Your task to perform on an android device: delete the emails in spam in the gmail app Image 0: 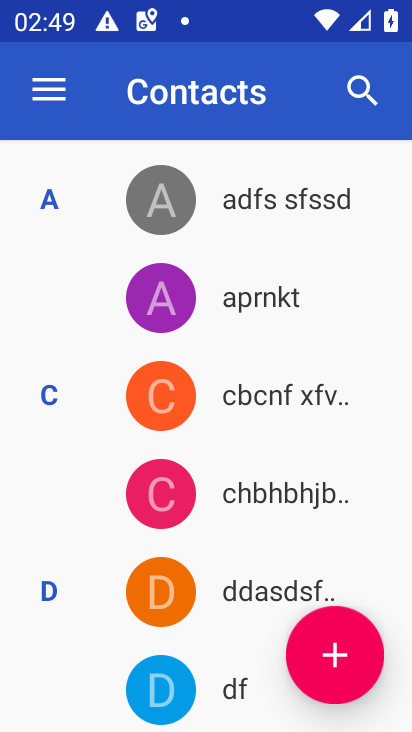
Step 0: press home button
Your task to perform on an android device: delete the emails in spam in the gmail app Image 1: 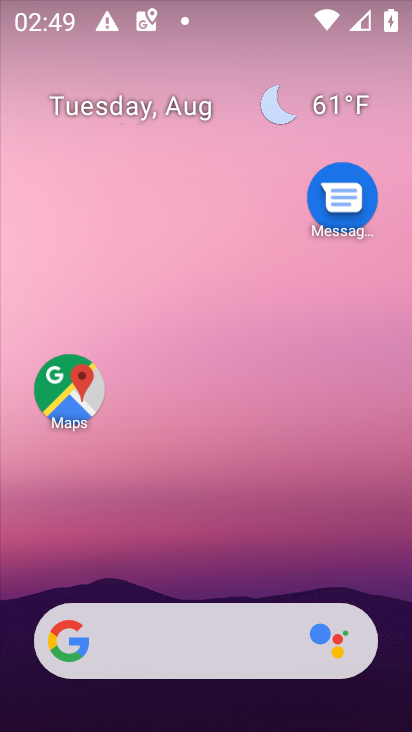
Step 1: drag from (207, 582) to (196, 197)
Your task to perform on an android device: delete the emails in spam in the gmail app Image 2: 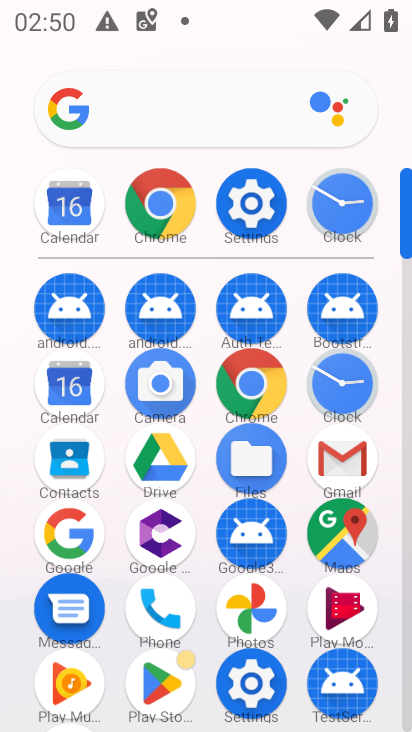
Step 2: click (332, 465)
Your task to perform on an android device: delete the emails in spam in the gmail app Image 3: 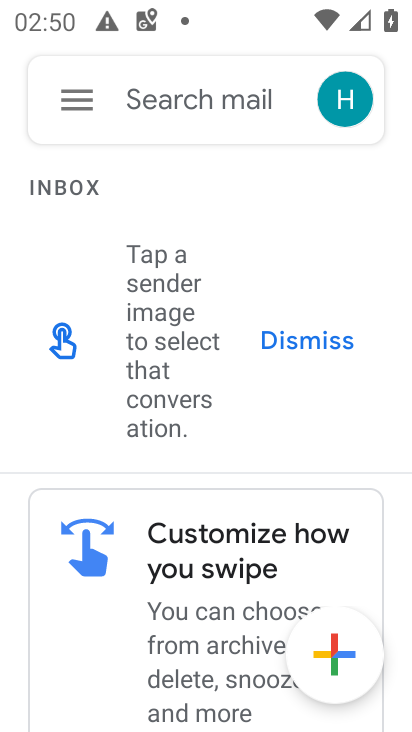
Step 3: click (69, 101)
Your task to perform on an android device: delete the emails in spam in the gmail app Image 4: 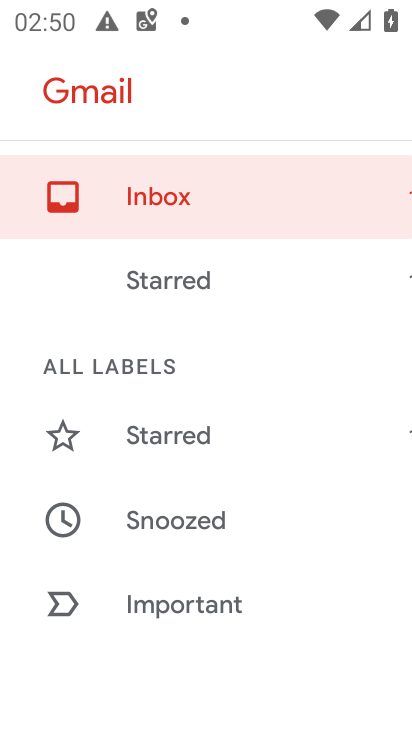
Step 4: drag from (164, 615) to (182, 313)
Your task to perform on an android device: delete the emails in spam in the gmail app Image 5: 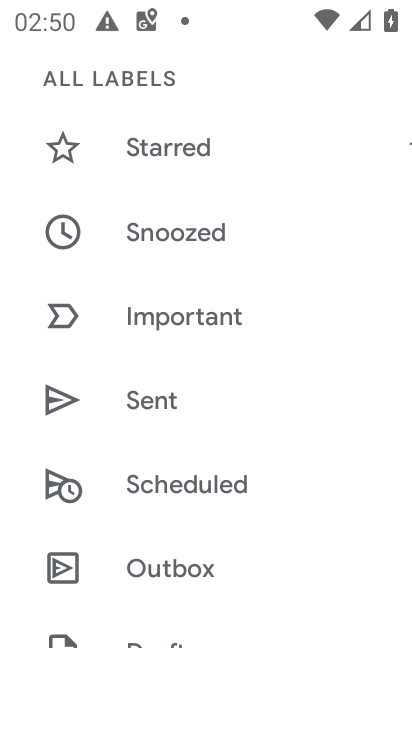
Step 5: drag from (157, 637) to (160, 321)
Your task to perform on an android device: delete the emails in spam in the gmail app Image 6: 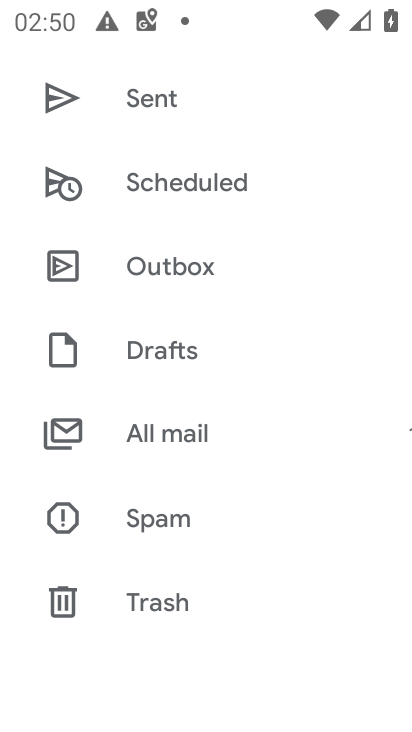
Step 6: click (184, 443)
Your task to perform on an android device: delete the emails in spam in the gmail app Image 7: 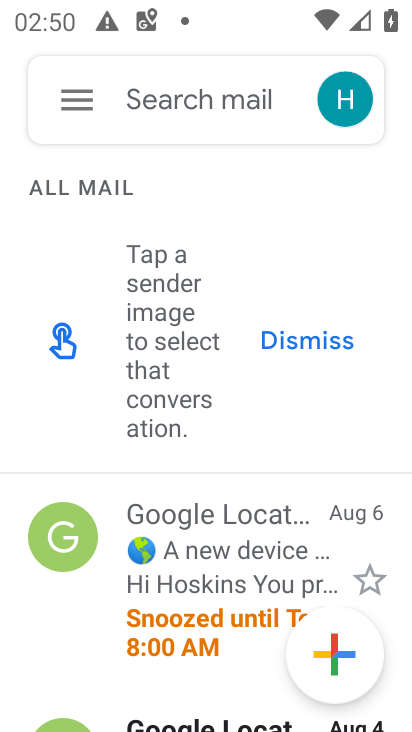
Step 7: click (261, 576)
Your task to perform on an android device: delete the emails in spam in the gmail app Image 8: 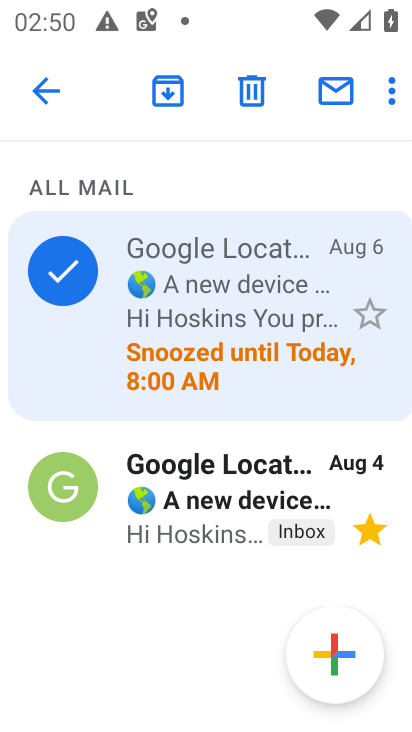
Step 8: click (251, 94)
Your task to perform on an android device: delete the emails in spam in the gmail app Image 9: 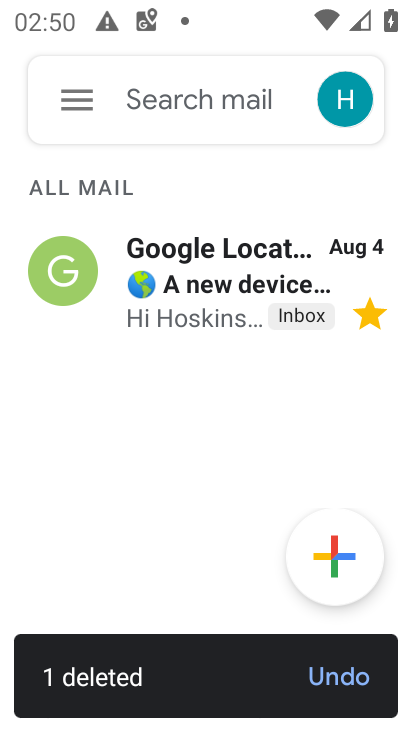
Step 9: task complete